Your task to perform on an android device: show emergency info Image 0: 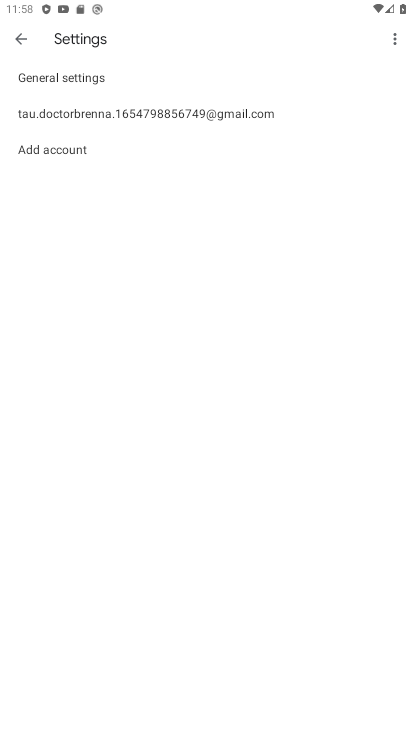
Step 0: press home button
Your task to perform on an android device: show emergency info Image 1: 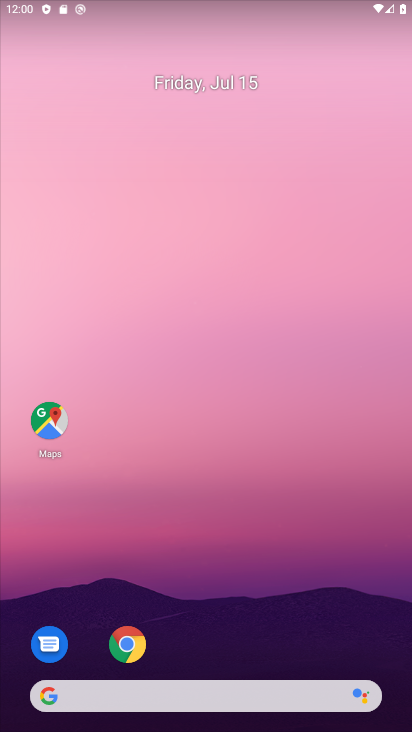
Step 1: drag from (319, 667) to (213, 4)
Your task to perform on an android device: show emergency info Image 2: 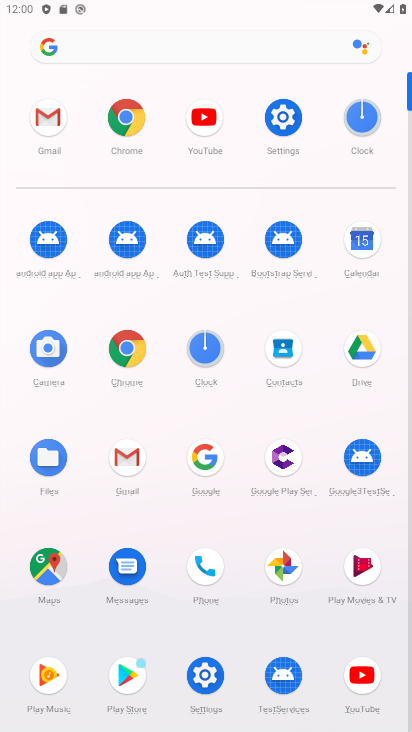
Step 2: click (202, 674)
Your task to perform on an android device: show emergency info Image 3: 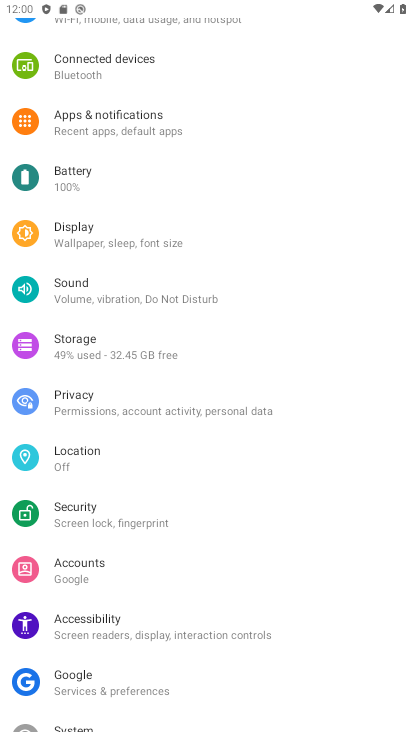
Step 3: drag from (73, 661) to (165, 100)
Your task to perform on an android device: show emergency info Image 4: 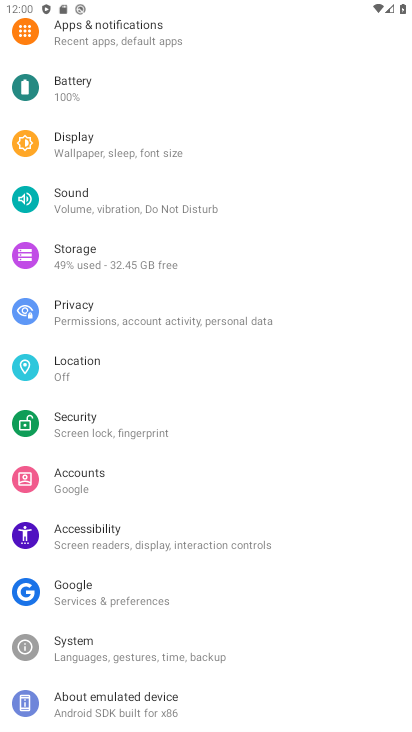
Step 4: click (91, 706)
Your task to perform on an android device: show emergency info Image 5: 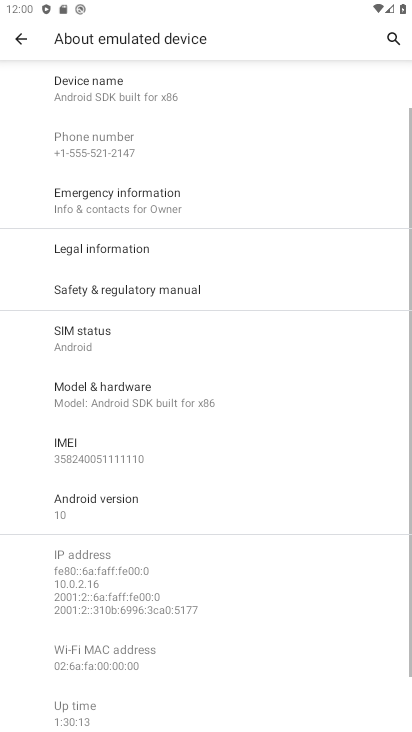
Step 5: click (139, 205)
Your task to perform on an android device: show emergency info Image 6: 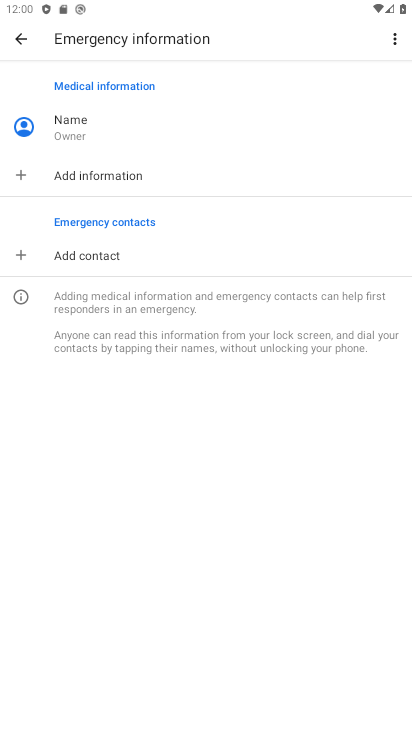
Step 6: task complete